Your task to perform on an android device: Open the map Image 0: 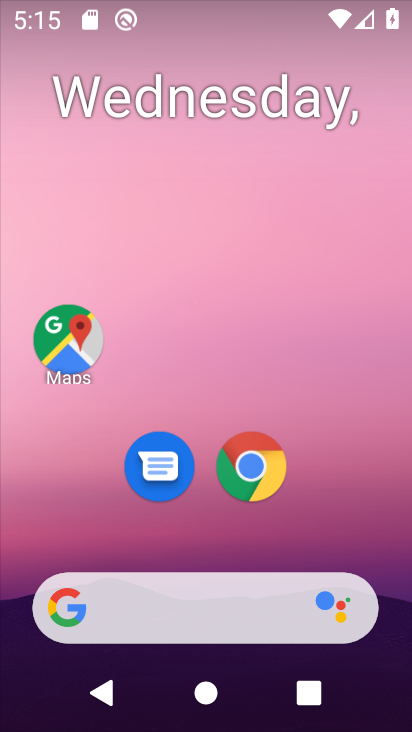
Step 0: drag from (356, 538) to (39, 413)
Your task to perform on an android device: Open the map Image 1: 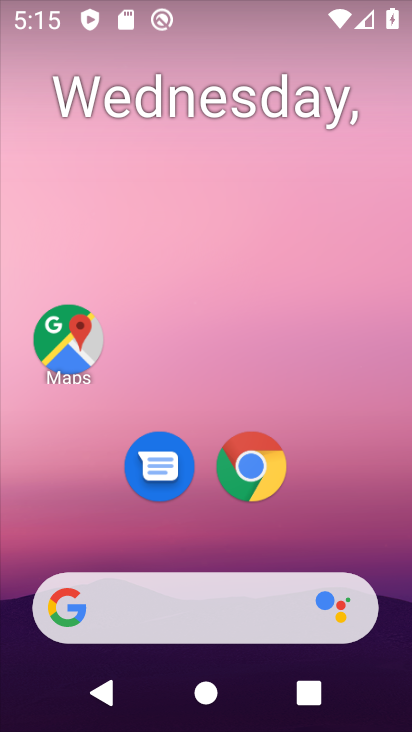
Step 1: drag from (348, 519) to (364, 378)
Your task to perform on an android device: Open the map Image 2: 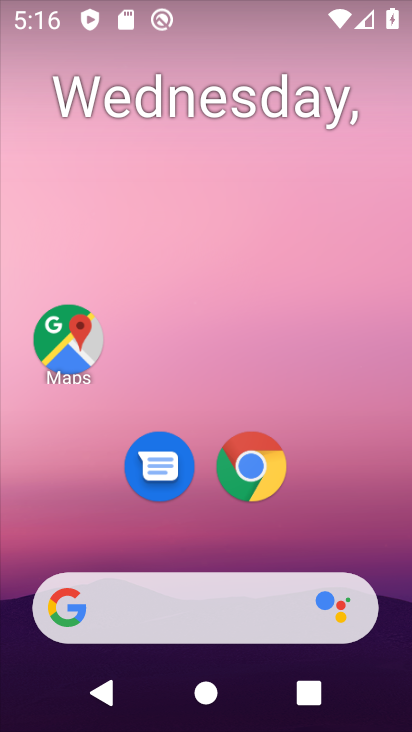
Step 2: drag from (344, 471) to (376, 444)
Your task to perform on an android device: Open the map Image 3: 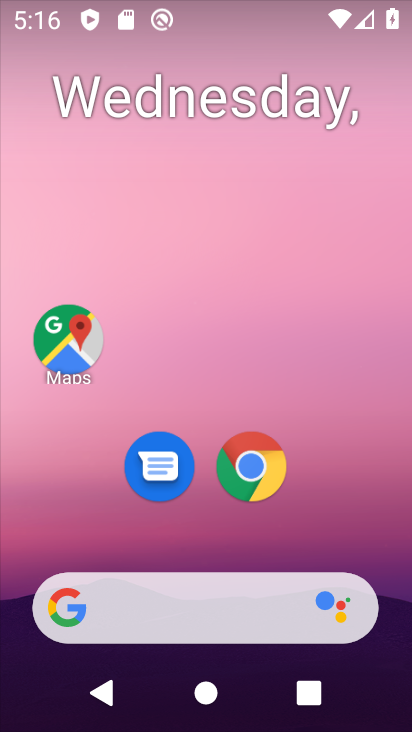
Step 3: click (51, 337)
Your task to perform on an android device: Open the map Image 4: 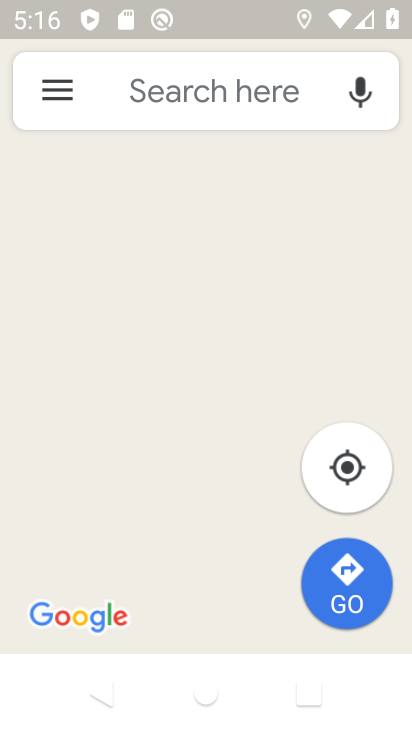
Step 4: task complete